Your task to perform on an android device: Open Wikipedia Image 0: 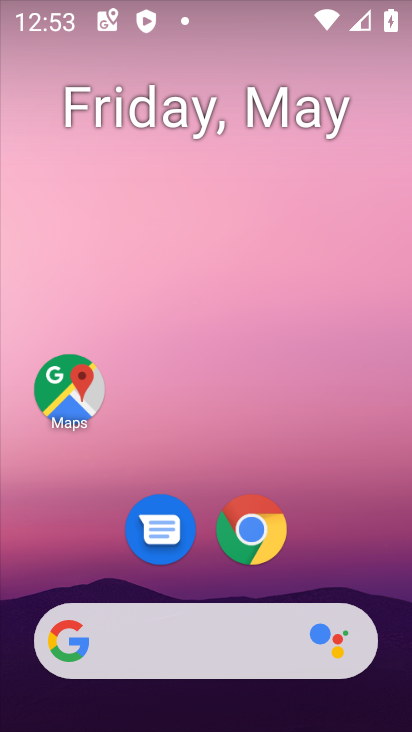
Step 0: click (230, 630)
Your task to perform on an android device: Open Wikipedia Image 1: 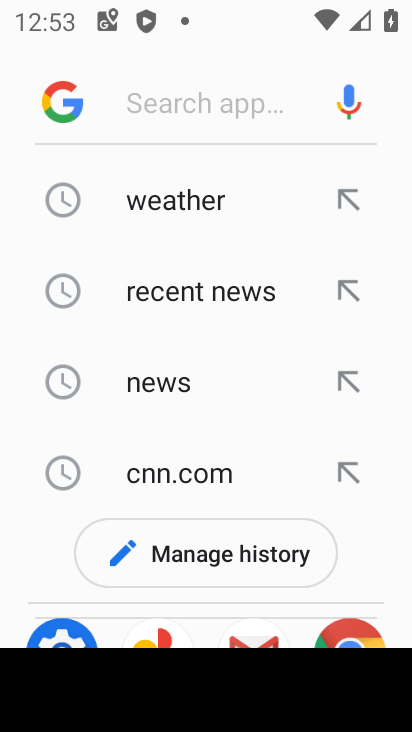
Step 1: type "wikipedia"
Your task to perform on an android device: Open Wikipedia Image 2: 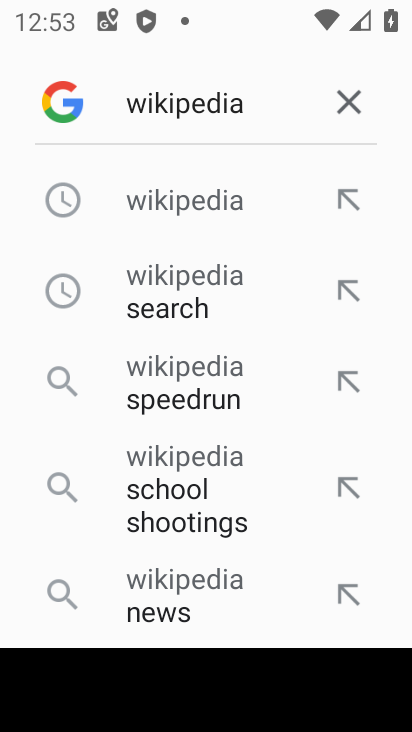
Step 2: click (145, 225)
Your task to perform on an android device: Open Wikipedia Image 3: 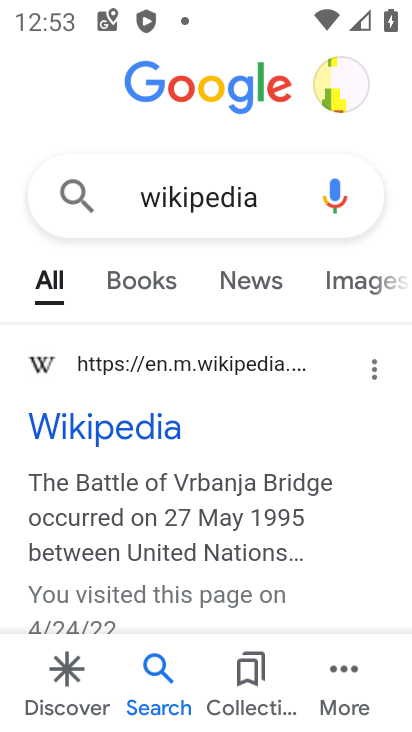
Step 3: click (105, 433)
Your task to perform on an android device: Open Wikipedia Image 4: 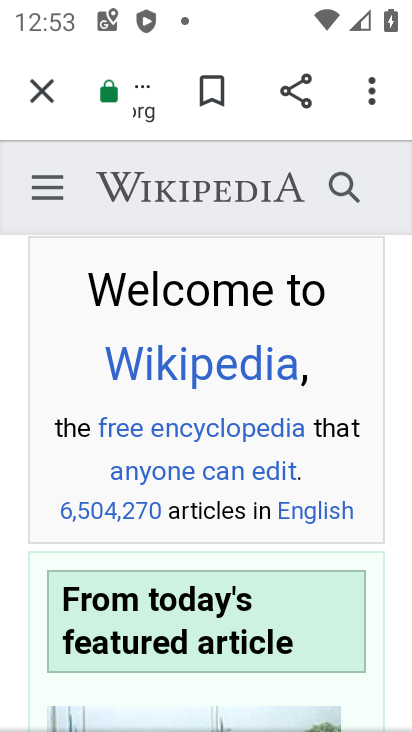
Step 4: task complete